Your task to perform on an android device: Go to sound settings Image 0: 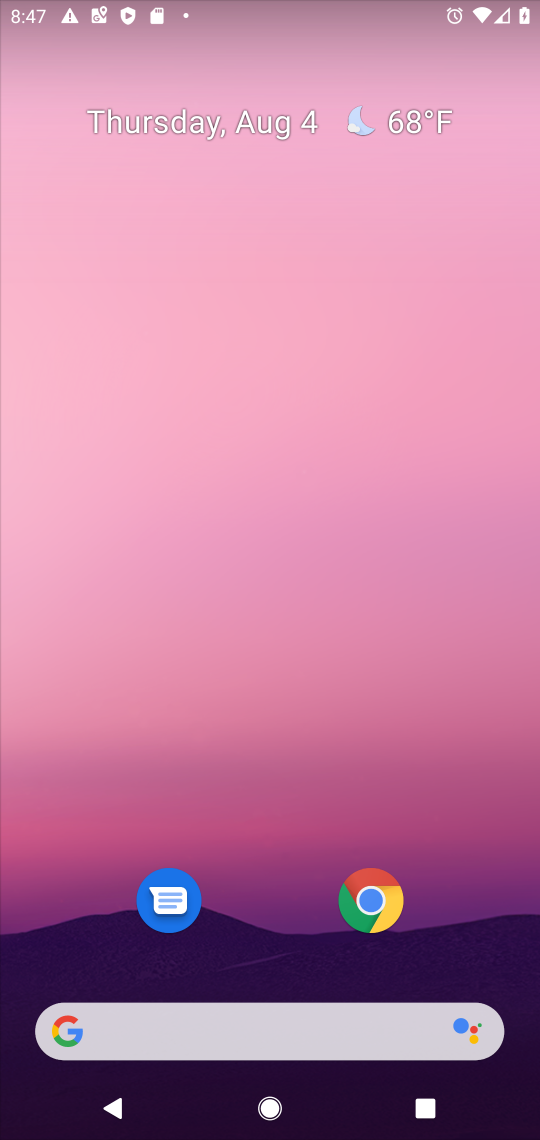
Step 0: drag from (247, 1023) to (316, 163)
Your task to perform on an android device: Go to sound settings Image 1: 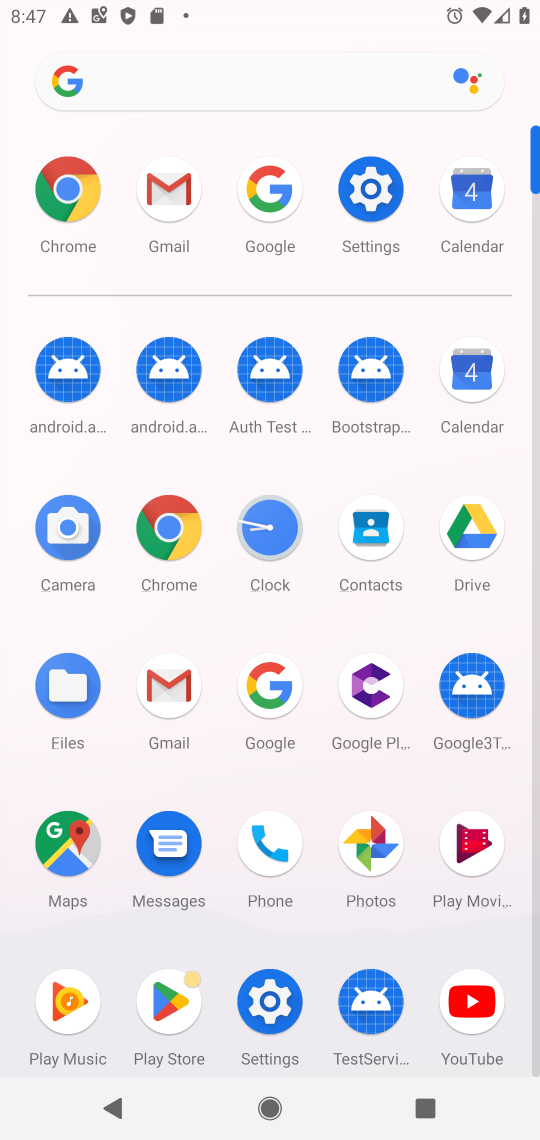
Step 1: click (370, 191)
Your task to perform on an android device: Go to sound settings Image 2: 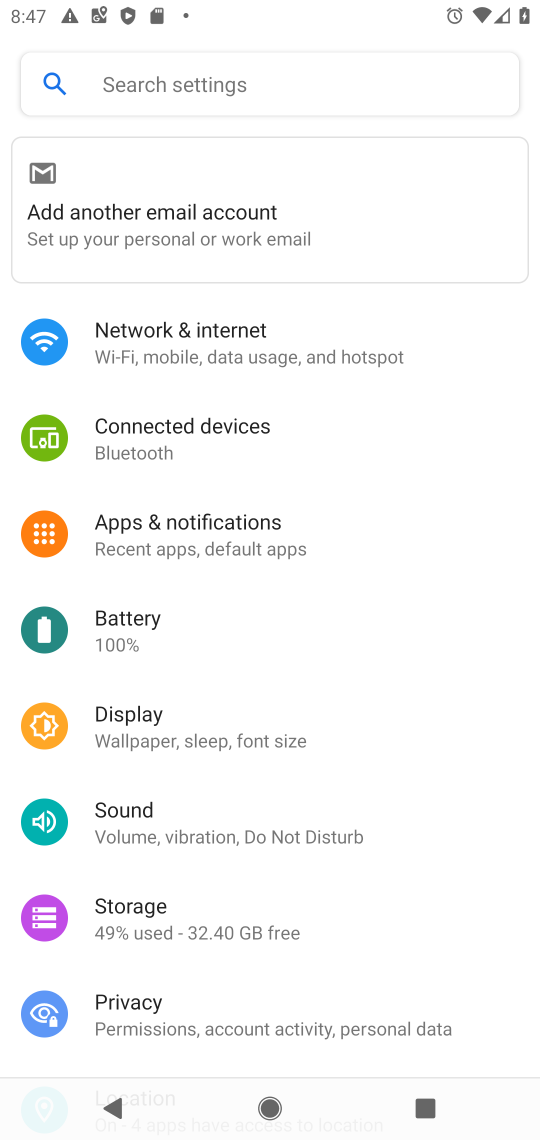
Step 2: click (174, 836)
Your task to perform on an android device: Go to sound settings Image 3: 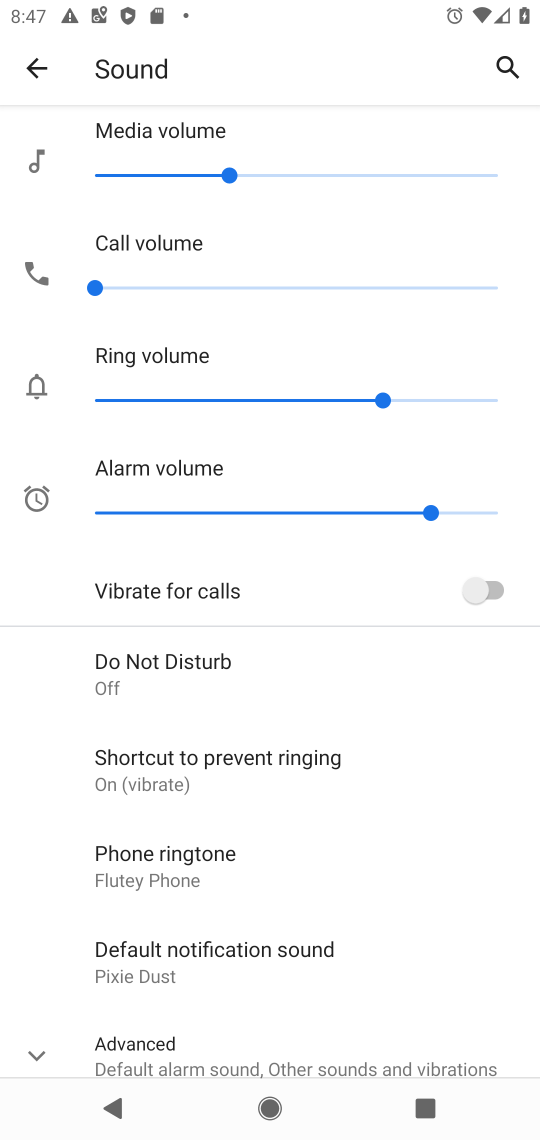
Step 3: task complete